Your task to perform on an android device: turn on priority inbox in the gmail app Image 0: 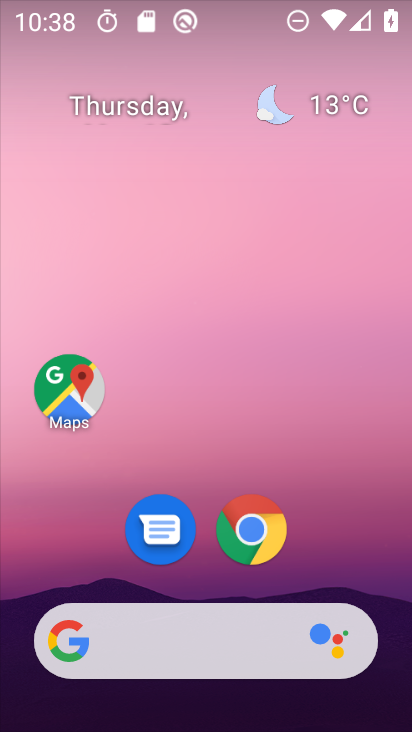
Step 0: drag from (357, 500) to (357, 176)
Your task to perform on an android device: turn on priority inbox in the gmail app Image 1: 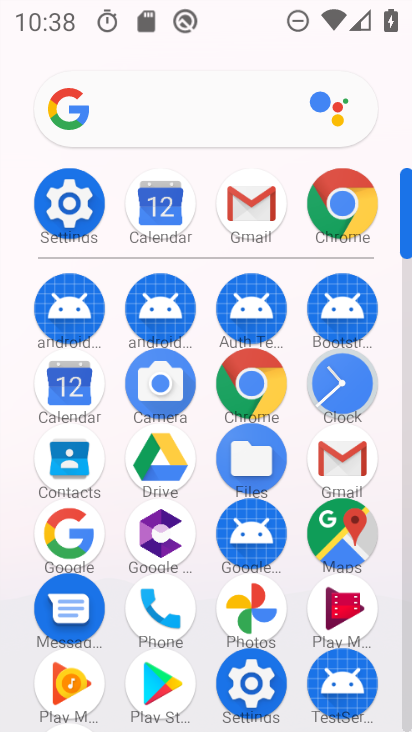
Step 1: click (262, 216)
Your task to perform on an android device: turn on priority inbox in the gmail app Image 2: 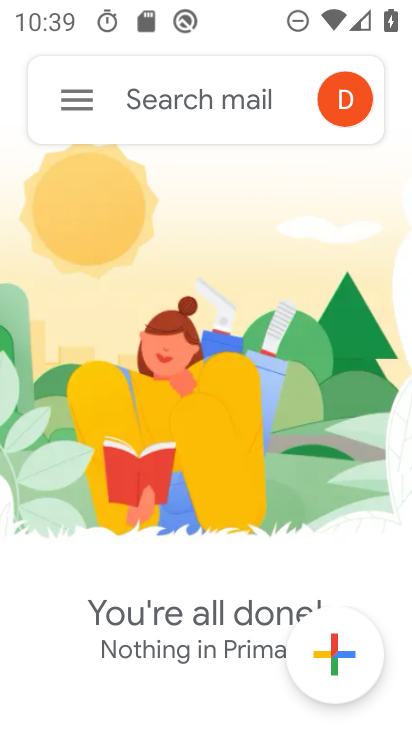
Step 2: click (71, 92)
Your task to perform on an android device: turn on priority inbox in the gmail app Image 3: 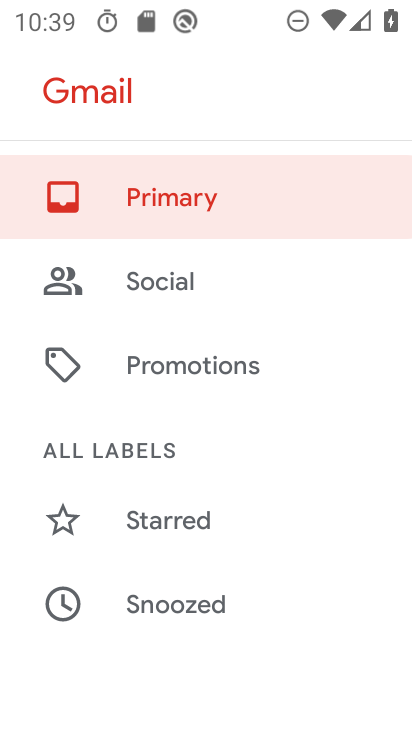
Step 3: drag from (251, 570) to (261, 238)
Your task to perform on an android device: turn on priority inbox in the gmail app Image 4: 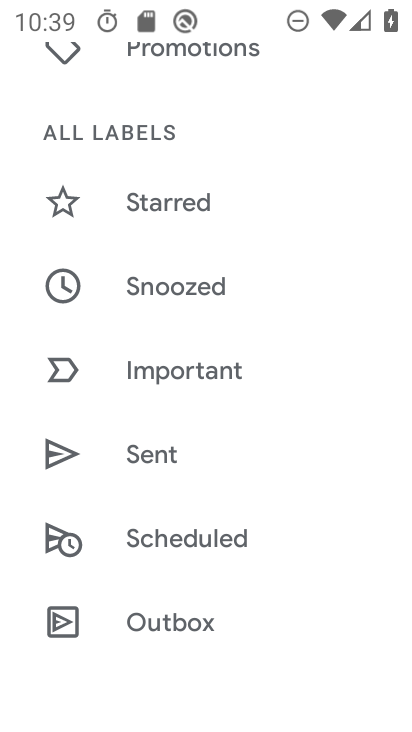
Step 4: drag from (282, 485) to (337, 164)
Your task to perform on an android device: turn on priority inbox in the gmail app Image 5: 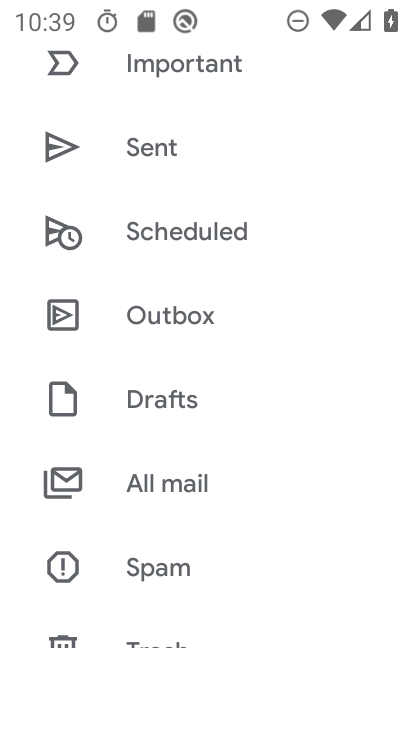
Step 5: drag from (253, 505) to (312, 114)
Your task to perform on an android device: turn on priority inbox in the gmail app Image 6: 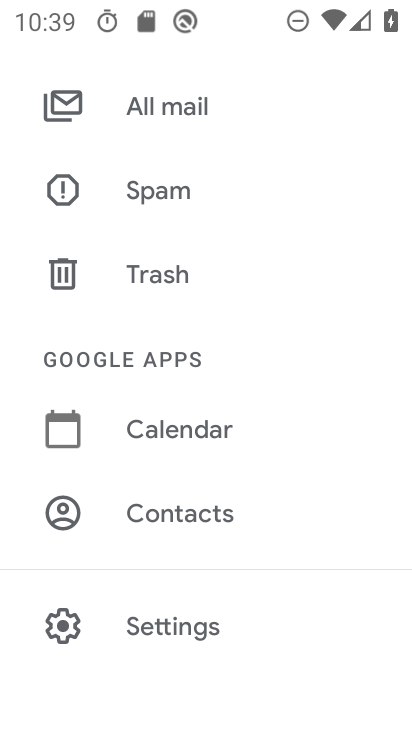
Step 6: click (209, 621)
Your task to perform on an android device: turn on priority inbox in the gmail app Image 7: 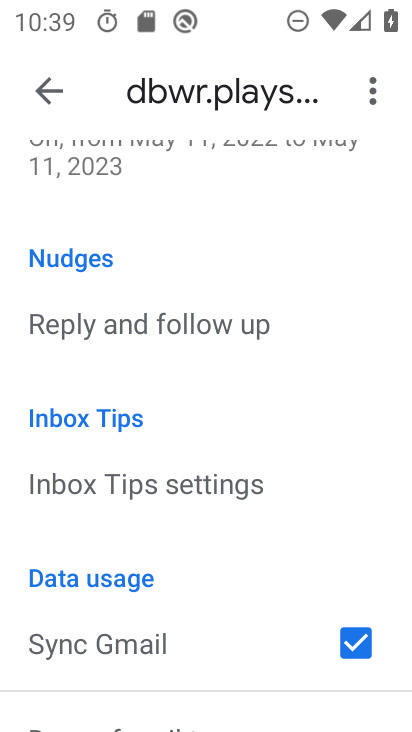
Step 7: drag from (182, 576) to (273, 145)
Your task to perform on an android device: turn on priority inbox in the gmail app Image 8: 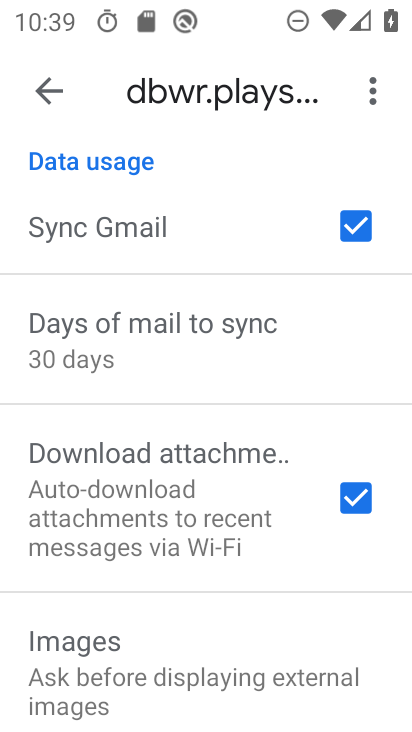
Step 8: drag from (200, 587) to (303, 189)
Your task to perform on an android device: turn on priority inbox in the gmail app Image 9: 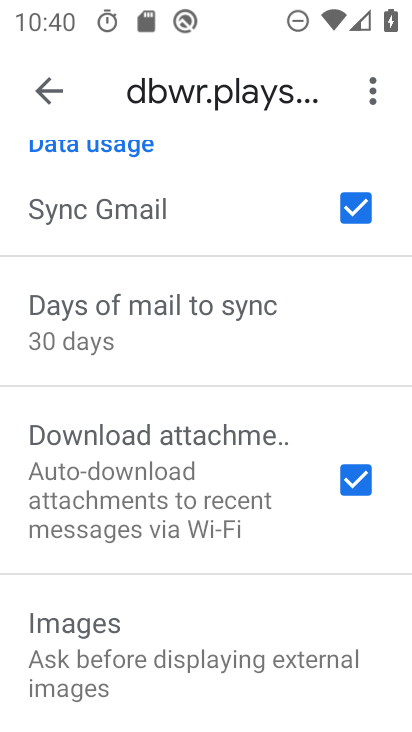
Step 9: drag from (249, 196) to (177, 577)
Your task to perform on an android device: turn on priority inbox in the gmail app Image 10: 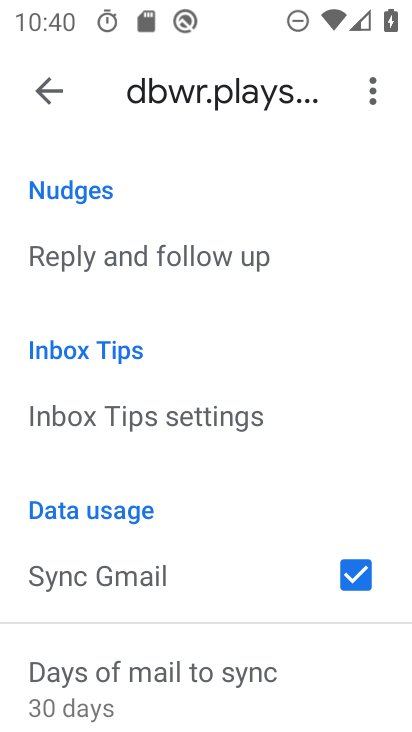
Step 10: drag from (302, 327) to (245, 570)
Your task to perform on an android device: turn on priority inbox in the gmail app Image 11: 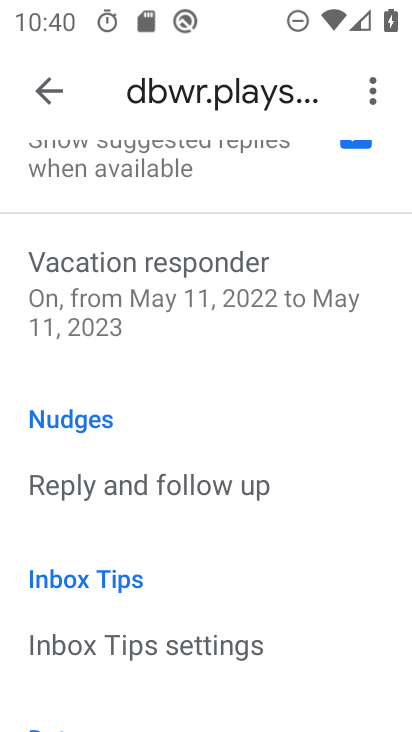
Step 11: drag from (313, 258) to (213, 658)
Your task to perform on an android device: turn on priority inbox in the gmail app Image 12: 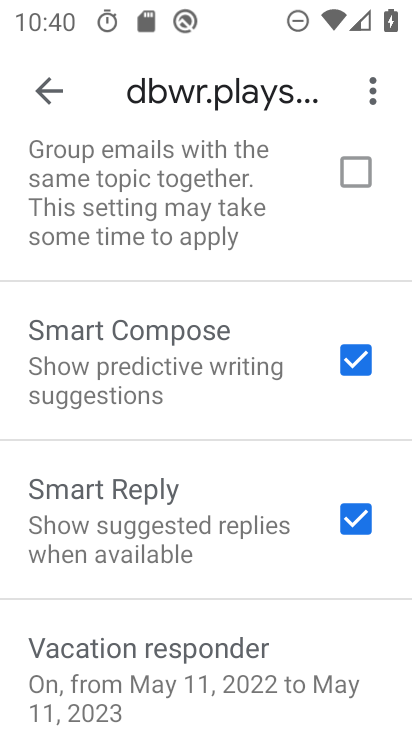
Step 12: drag from (260, 211) to (117, 578)
Your task to perform on an android device: turn on priority inbox in the gmail app Image 13: 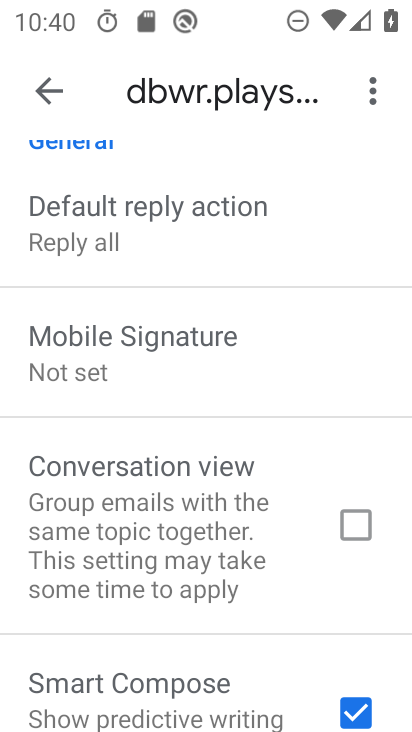
Step 13: drag from (292, 207) to (95, 520)
Your task to perform on an android device: turn on priority inbox in the gmail app Image 14: 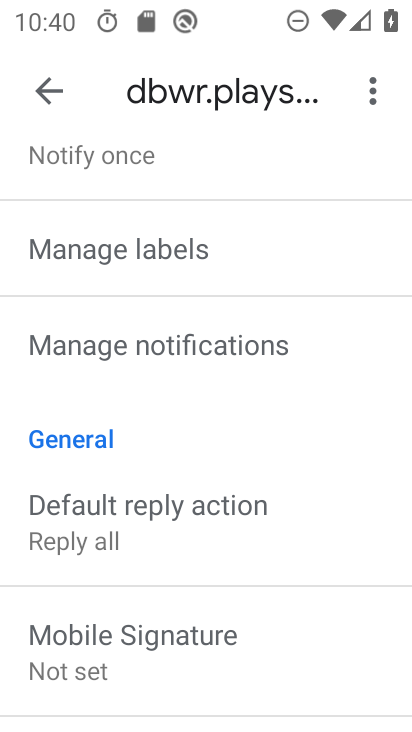
Step 14: drag from (277, 250) to (232, 441)
Your task to perform on an android device: turn on priority inbox in the gmail app Image 15: 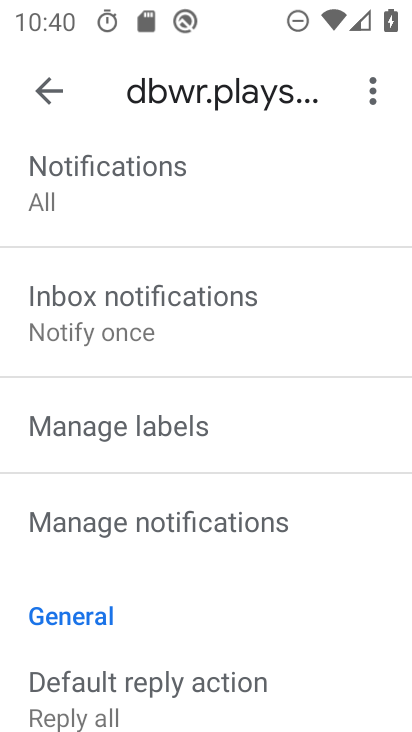
Step 15: drag from (321, 181) to (199, 592)
Your task to perform on an android device: turn on priority inbox in the gmail app Image 16: 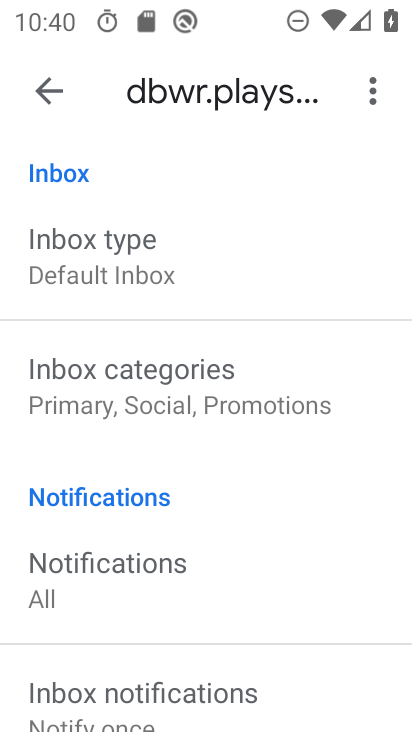
Step 16: click (135, 243)
Your task to perform on an android device: turn on priority inbox in the gmail app Image 17: 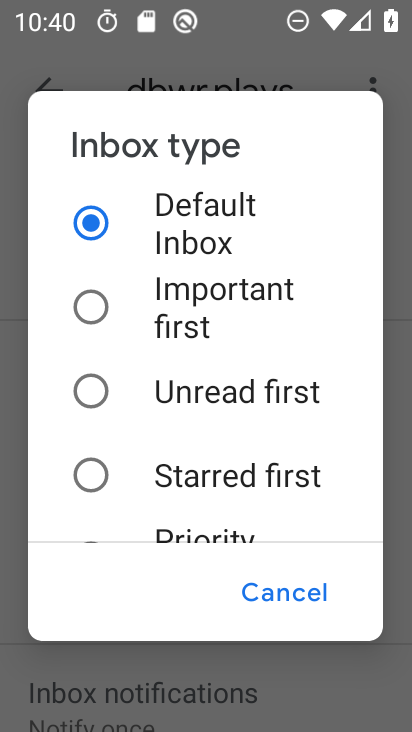
Step 17: drag from (145, 500) to (231, 164)
Your task to perform on an android device: turn on priority inbox in the gmail app Image 18: 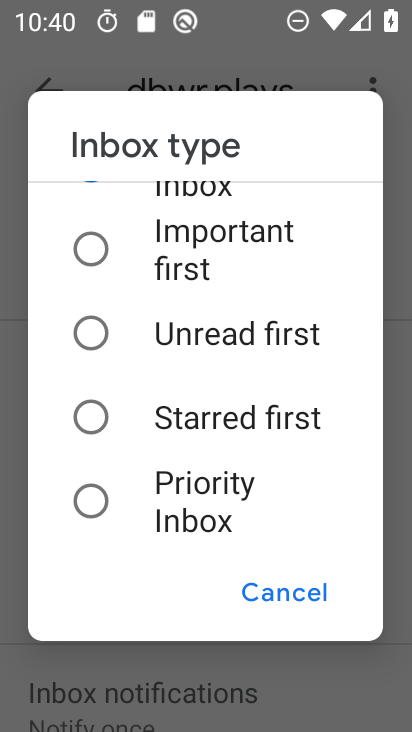
Step 18: click (95, 499)
Your task to perform on an android device: turn on priority inbox in the gmail app Image 19: 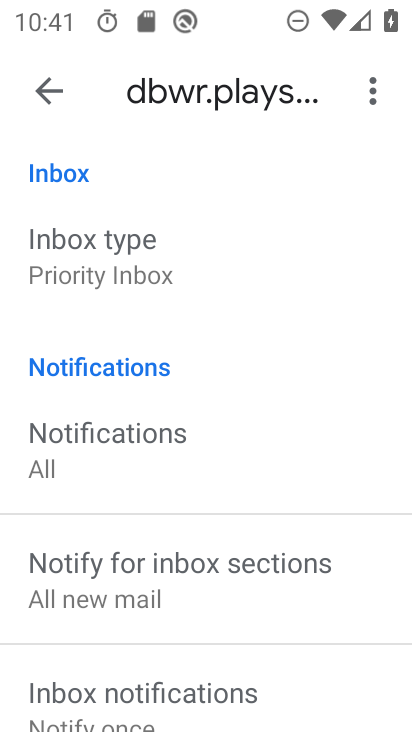
Step 19: task complete